Your task to perform on an android device: What's the weather? Image 0: 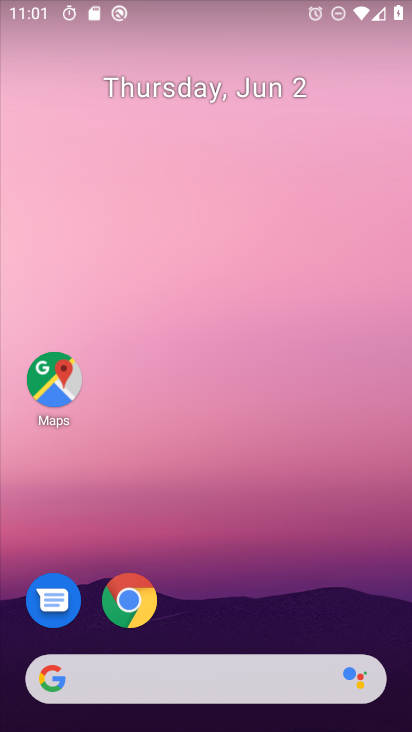
Step 0: drag from (203, 591) to (204, 81)
Your task to perform on an android device: What's the weather? Image 1: 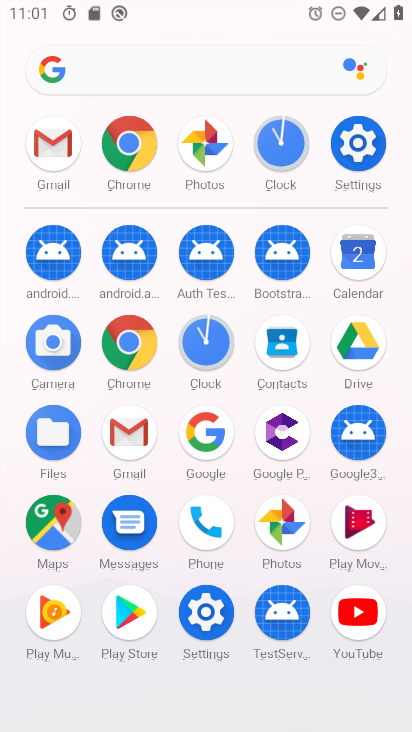
Step 1: click (201, 429)
Your task to perform on an android device: What's the weather? Image 2: 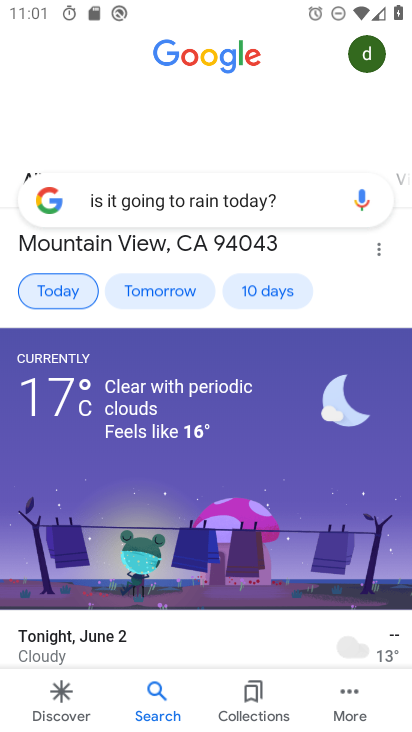
Step 2: click (300, 205)
Your task to perform on an android device: What's the weather? Image 3: 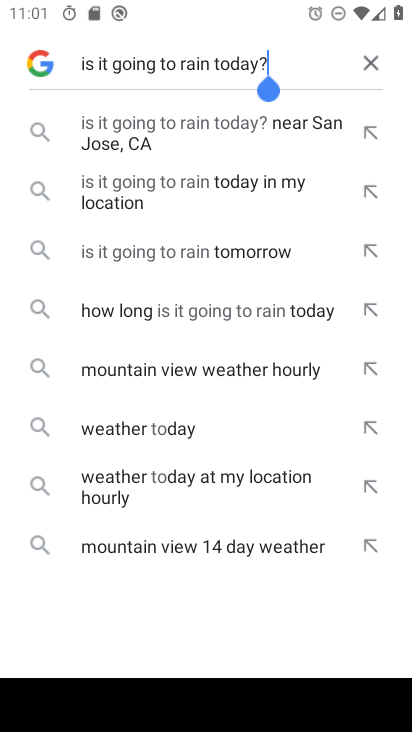
Step 3: click (371, 64)
Your task to perform on an android device: What's the weather? Image 4: 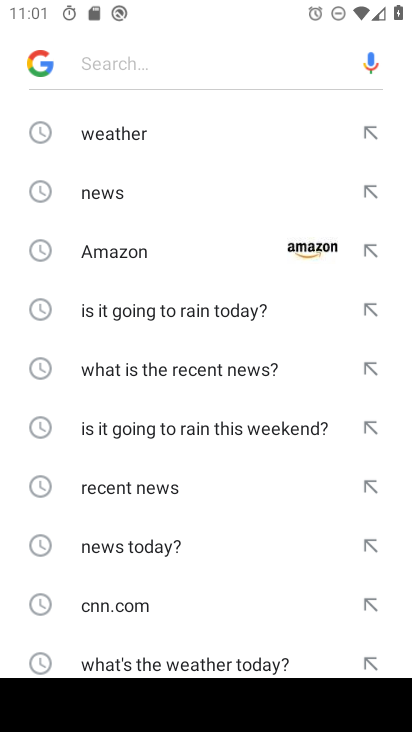
Step 4: click (124, 142)
Your task to perform on an android device: What's the weather? Image 5: 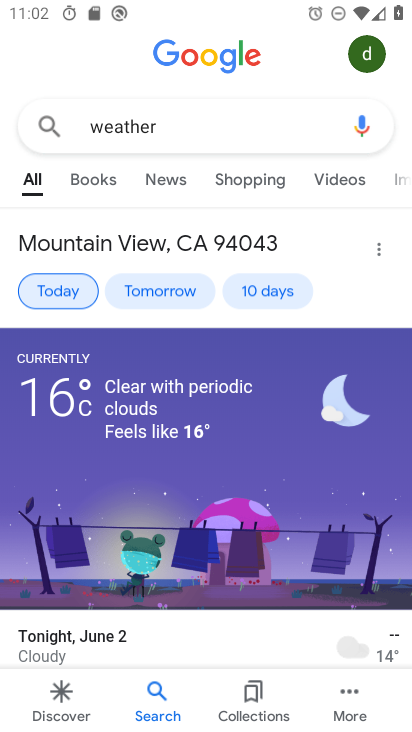
Step 5: task complete